Your task to perform on an android device: turn notification dots on Image 0: 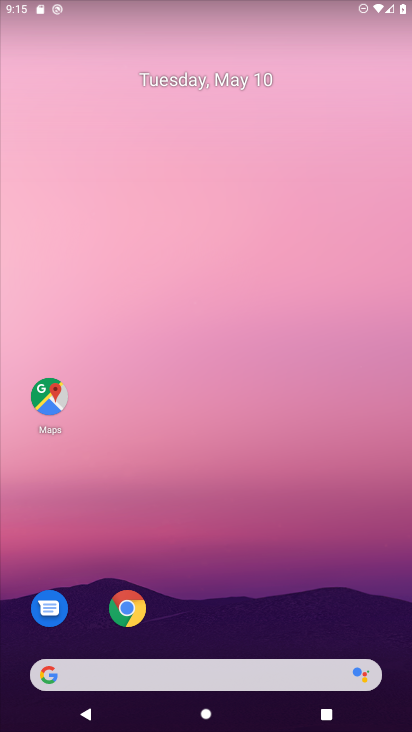
Step 0: drag from (390, 647) to (274, 49)
Your task to perform on an android device: turn notification dots on Image 1: 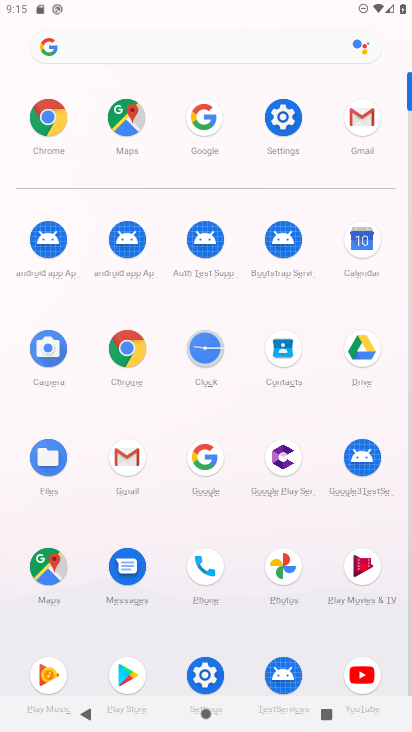
Step 1: click (205, 685)
Your task to perform on an android device: turn notification dots on Image 2: 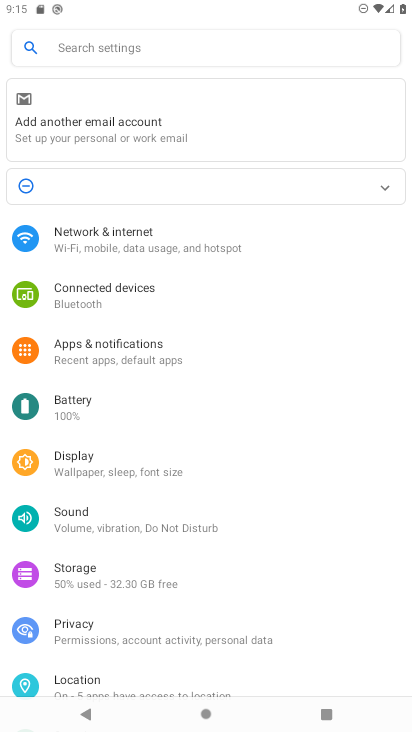
Step 2: click (141, 367)
Your task to perform on an android device: turn notification dots on Image 3: 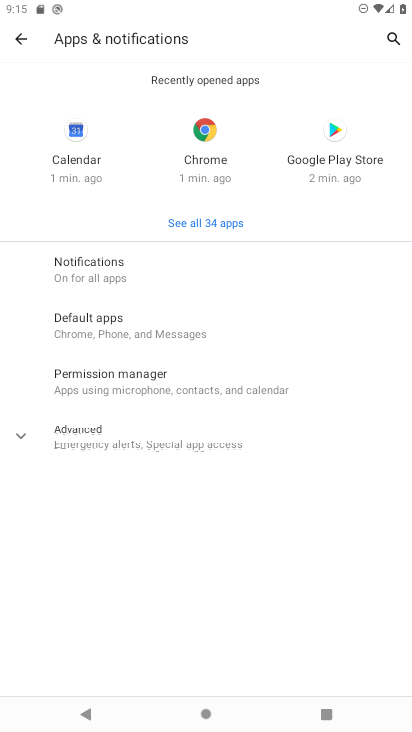
Step 3: click (136, 264)
Your task to perform on an android device: turn notification dots on Image 4: 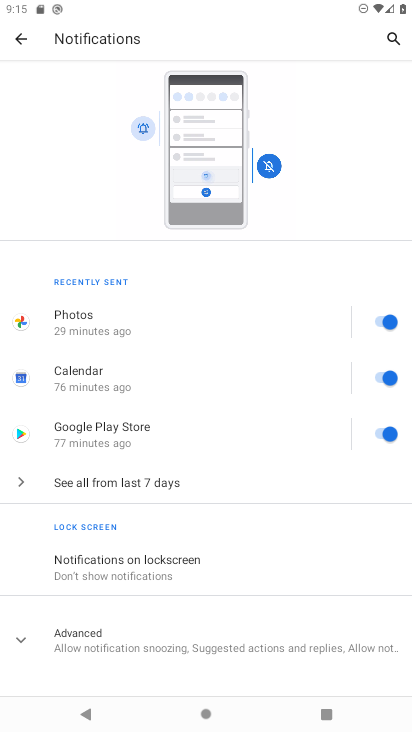
Step 4: drag from (130, 621) to (196, 216)
Your task to perform on an android device: turn notification dots on Image 5: 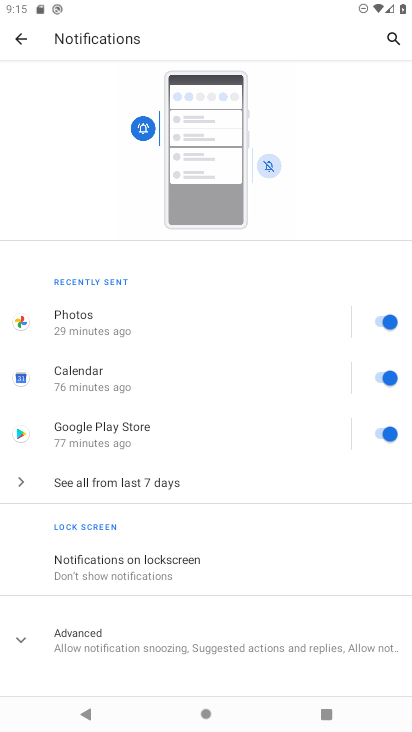
Step 5: click (27, 635)
Your task to perform on an android device: turn notification dots on Image 6: 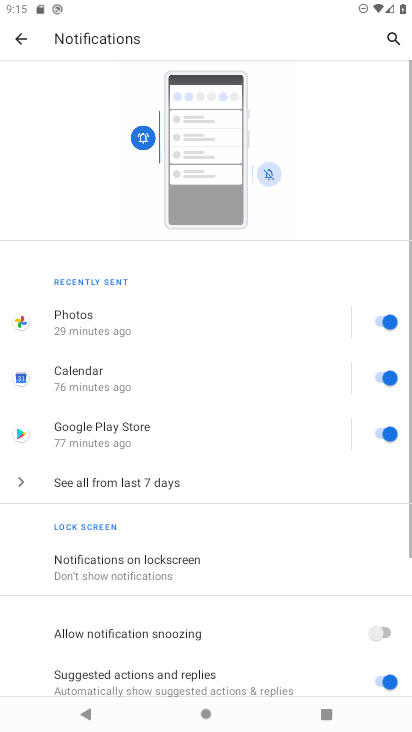
Step 6: drag from (27, 635) to (103, 277)
Your task to perform on an android device: turn notification dots on Image 7: 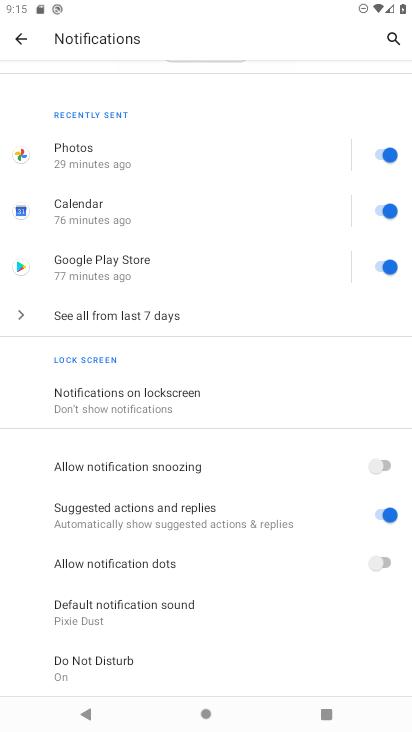
Step 7: click (250, 573)
Your task to perform on an android device: turn notification dots on Image 8: 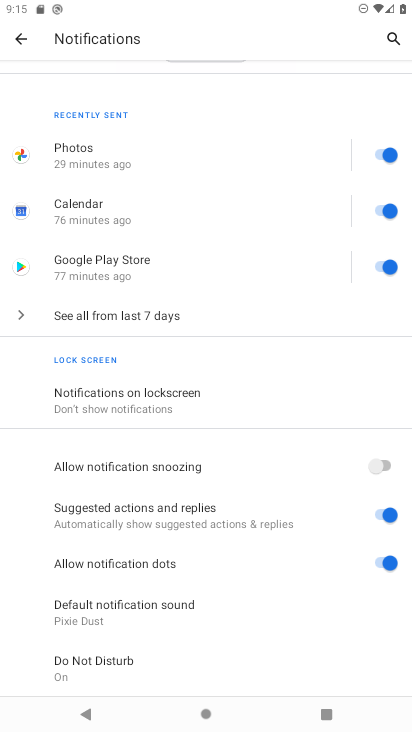
Step 8: task complete